Your task to perform on an android device: toggle airplane mode Image 0: 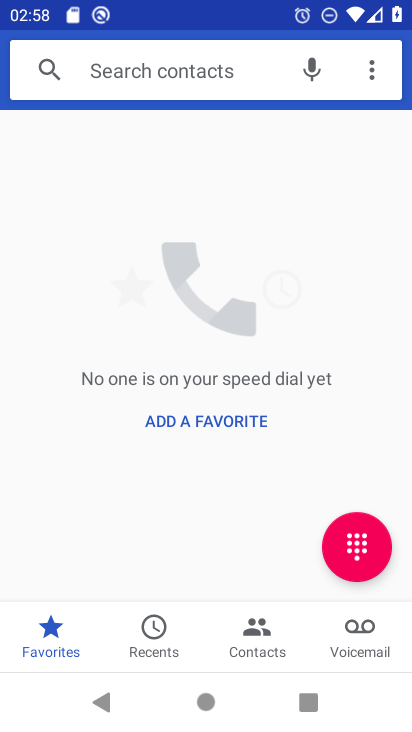
Step 0: press home button
Your task to perform on an android device: toggle airplane mode Image 1: 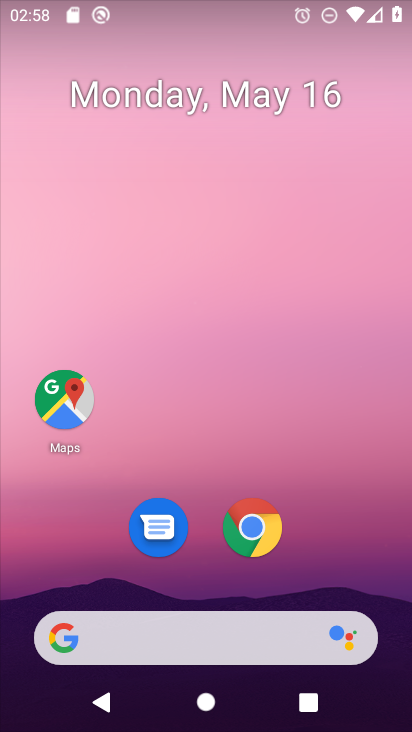
Step 1: drag from (317, 551) to (299, 23)
Your task to perform on an android device: toggle airplane mode Image 2: 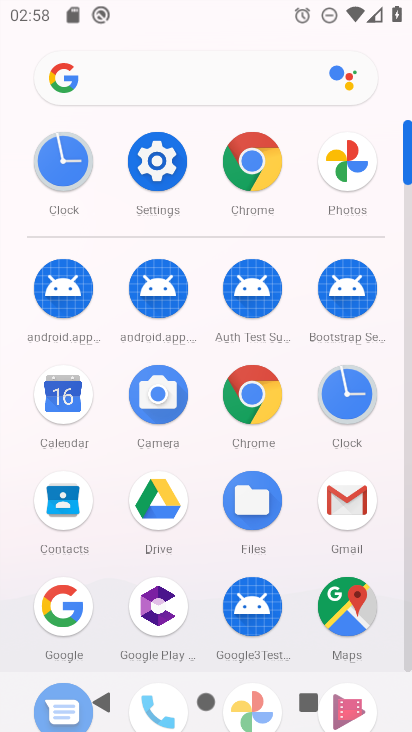
Step 2: click (159, 177)
Your task to perform on an android device: toggle airplane mode Image 3: 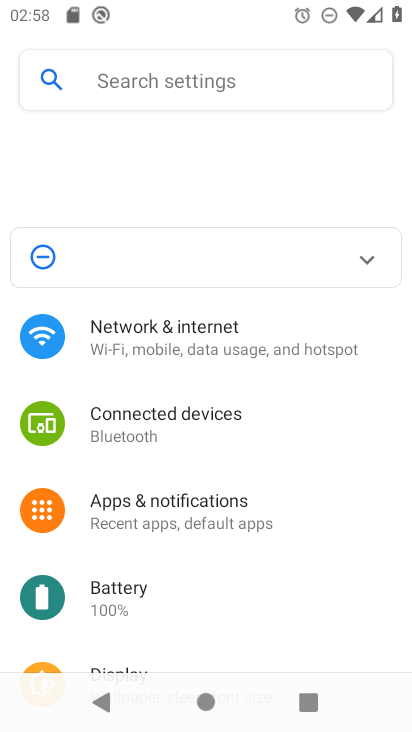
Step 3: drag from (159, 177) to (194, 381)
Your task to perform on an android device: toggle airplane mode Image 4: 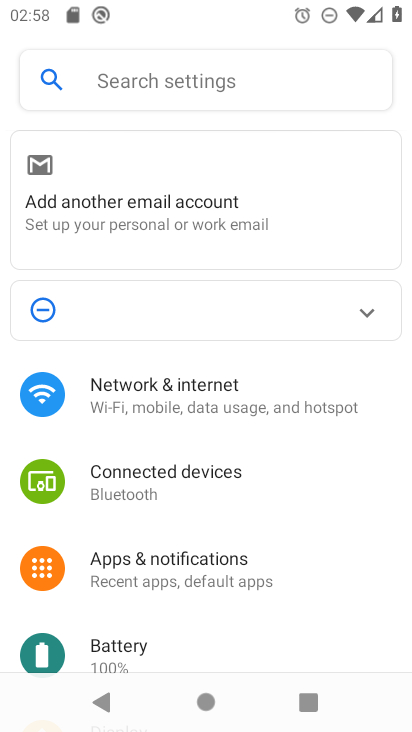
Step 4: click (247, 360)
Your task to perform on an android device: toggle airplane mode Image 5: 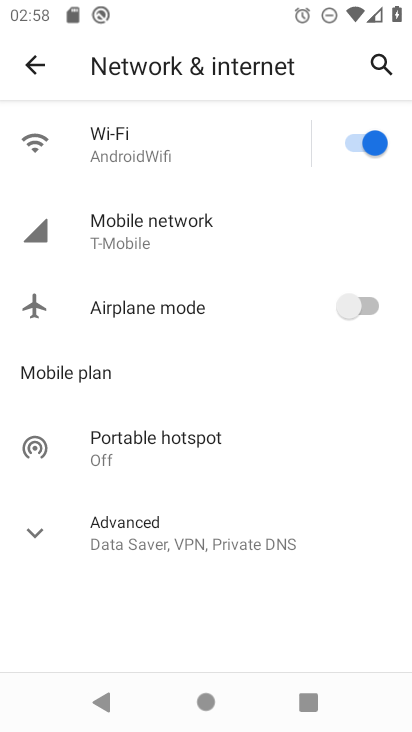
Step 5: click (381, 295)
Your task to perform on an android device: toggle airplane mode Image 6: 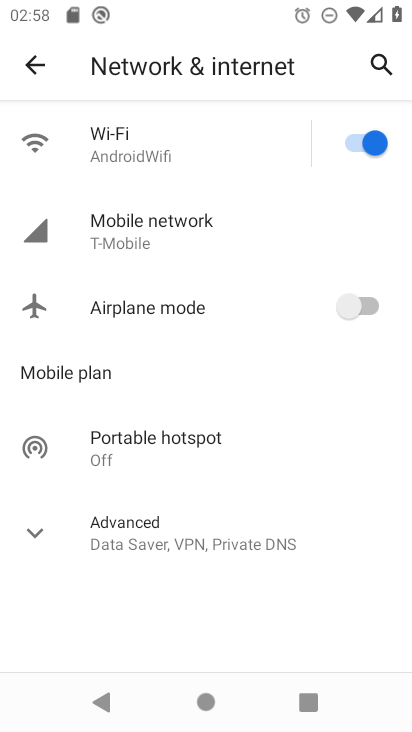
Step 6: click (381, 295)
Your task to perform on an android device: toggle airplane mode Image 7: 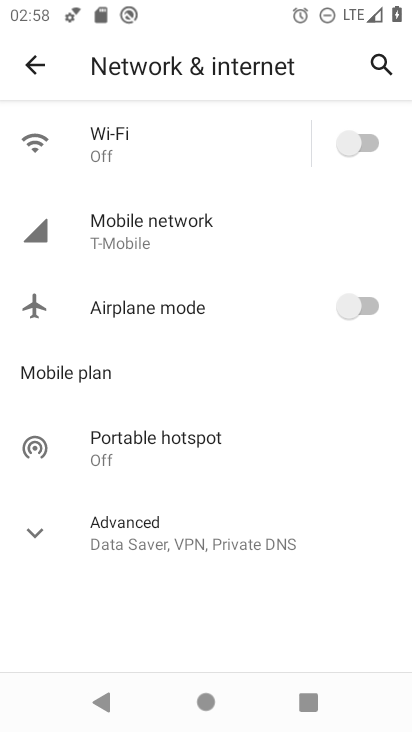
Step 7: click (334, 153)
Your task to perform on an android device: toggle airplane mode Image 8: 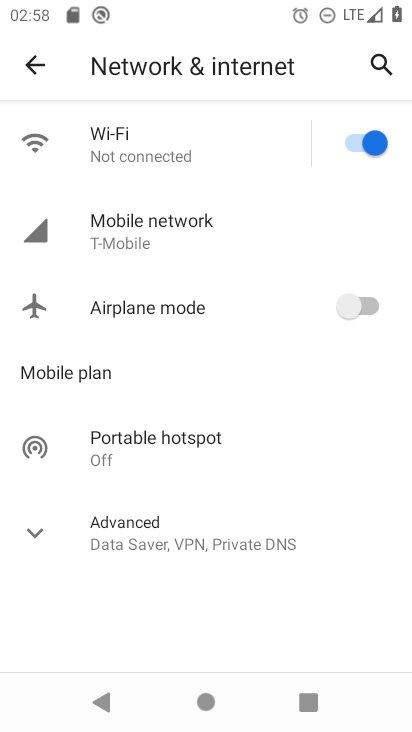
Step 8: task complete